Your task to perform on an android device: manage bookmarks in the chrome app Image 0: 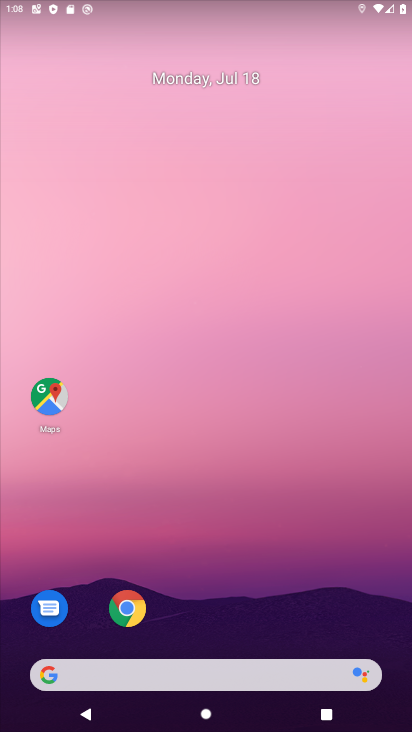
Step 0: click (130, 607)
Your task to perform on an android device: manage bookmarks in the chrome app Image 1: 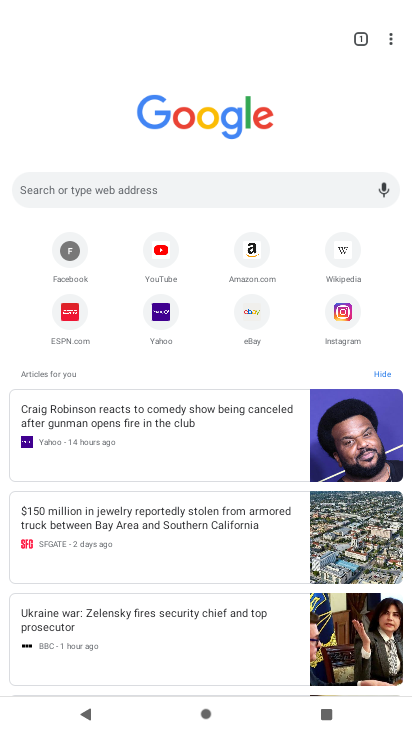
Step 1: click (391, 44)
Your task to perform on an android device: manage bookmarks in the chrome app Image 2: 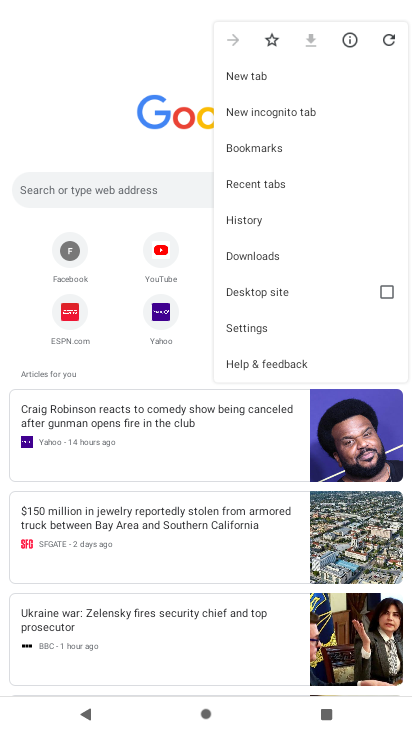
Step 2: click (289, 145)
Your task to perform on an android device: manage bookmarks in the chrome app Image 3: 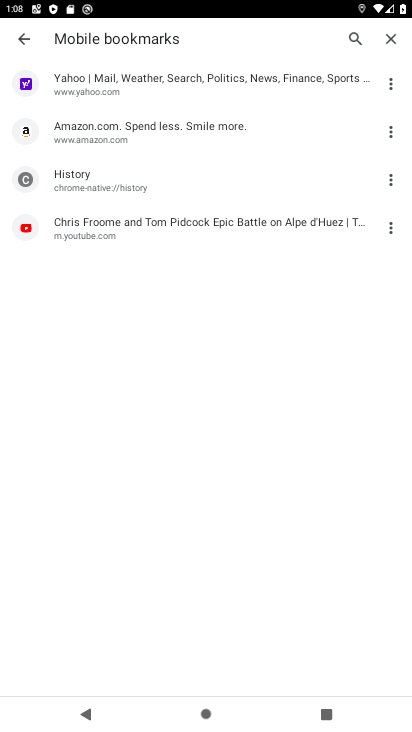
Step 3: click (186, 215)
Your task to perform on an android device: manage bookmarks in the chrome app Image 4: 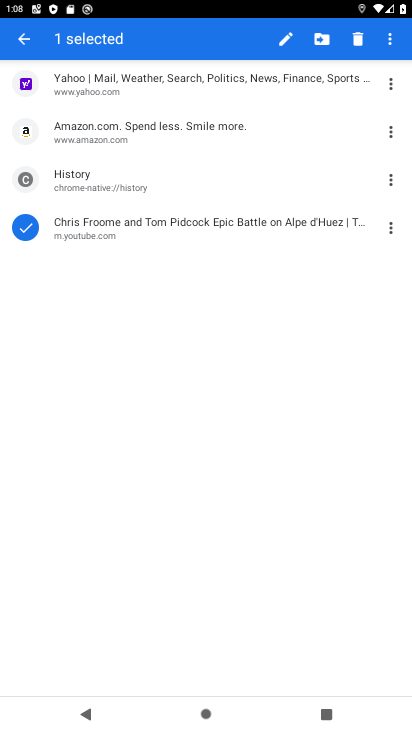
Step 4: click (318, 31)
Your task to perform on an android device: manage bookmarks in the chrome app Image 5: 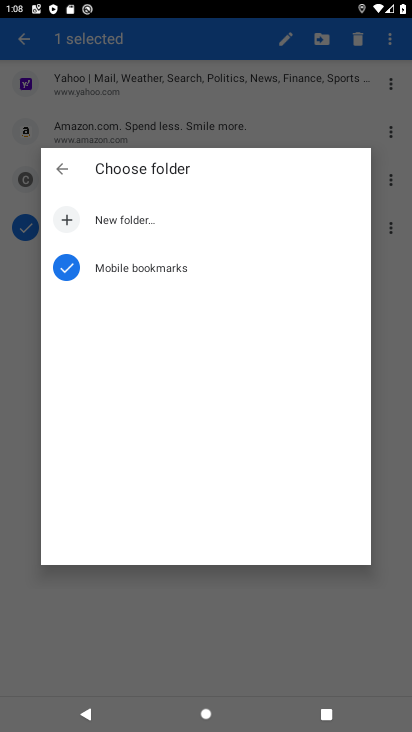
Step 5: click (158, 278)
Your task to perform on an android device: manage bookmarks in the chrome app Image 6: 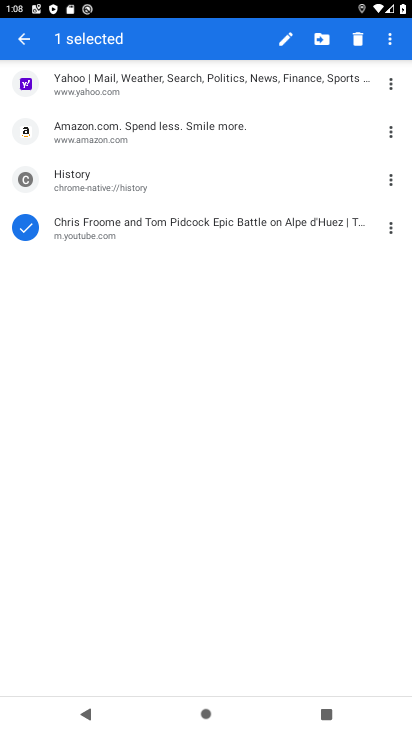
Step 6: task complete